Your task to perform on an android device: turn on translation in the chrome app Image 0: 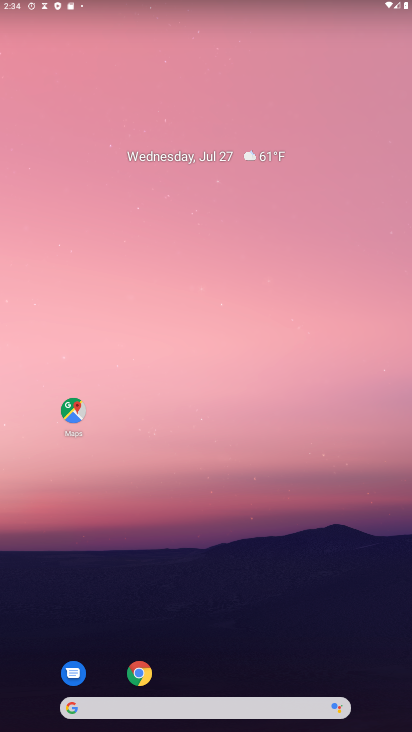
Step 0: click (141, 669)
Your task to perform on an android device: turn on translation in the chrome app Image 1: 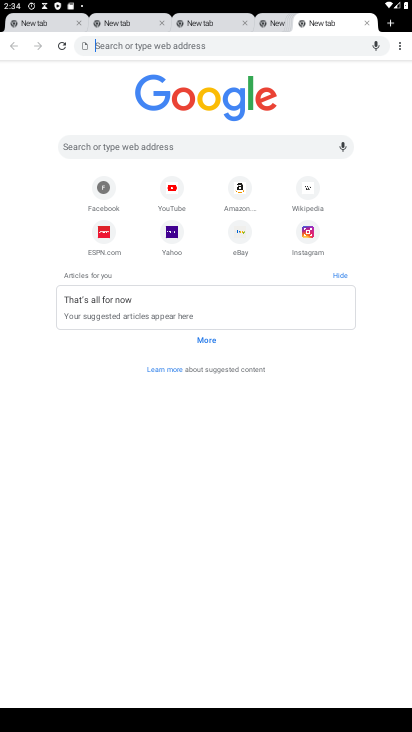
Step 1: click (398, 40)
Your task to perform on an android device: turn on translation in the chrome app Image 2: 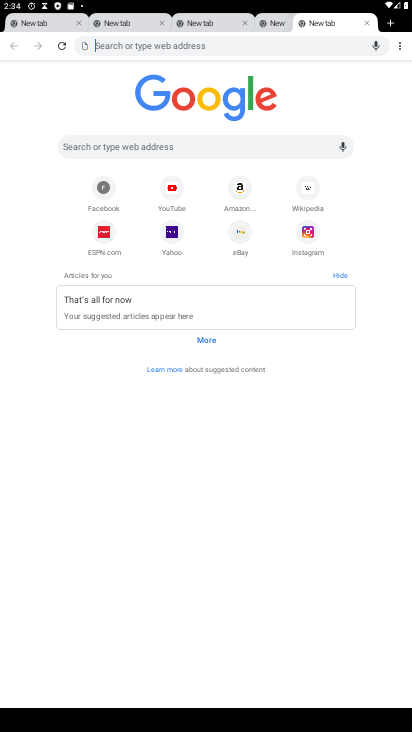
Step 2: click (402, 44)
Your task to perform on an android device: turn on translation in the chrome app Image 3: 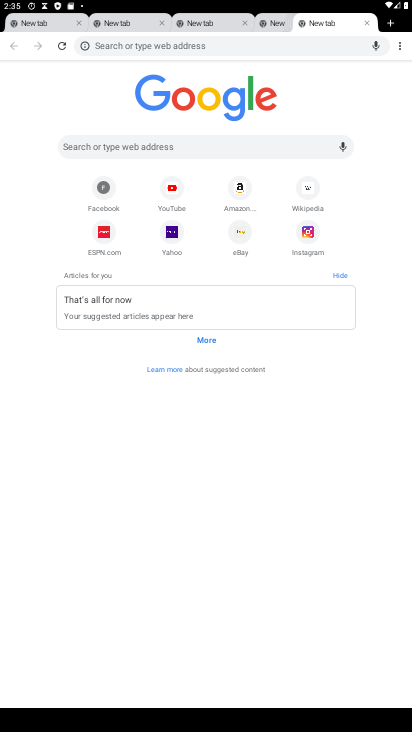
Step 3: click (401, 44)
Your task to perform on an android device: turn on translation in the chrome app Image 4: 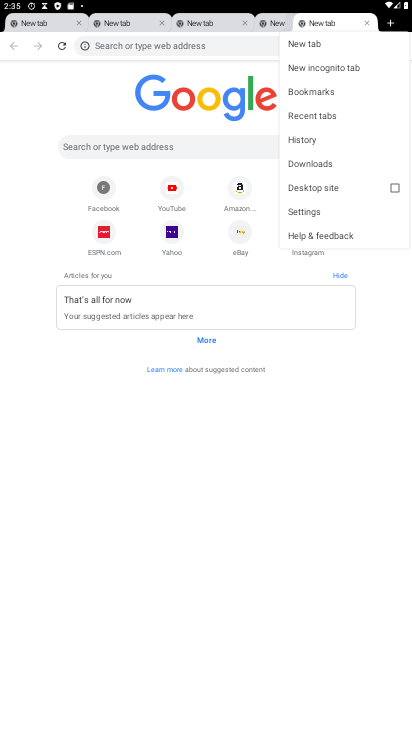
Step 4: click (318, 214)
Your task to perform on an android device: turn on translation in the chrome app Image 5: 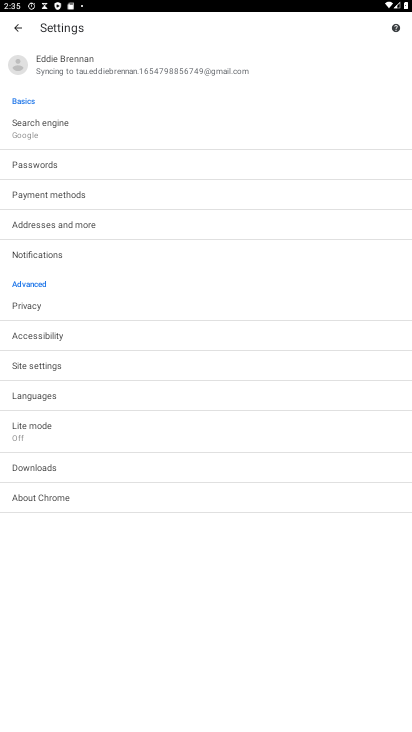
Step 5: click (35, 392)
Your task to perform on an android device: turn on translation in the chrome app Image 6: 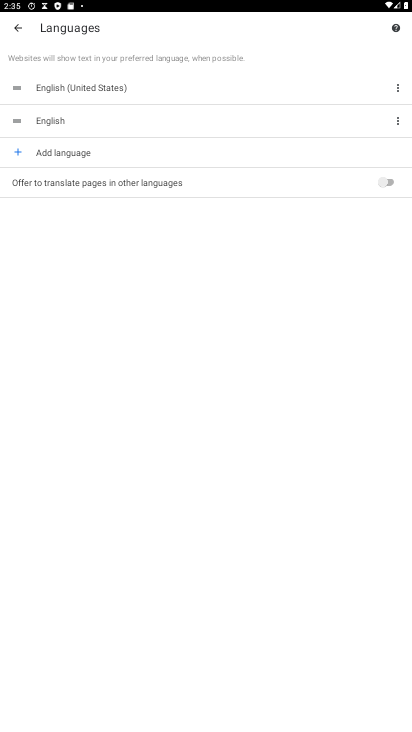
Step 6: click (390, 175)
Your task to perform on an android device: turn on translation in the chrome app Image 7: 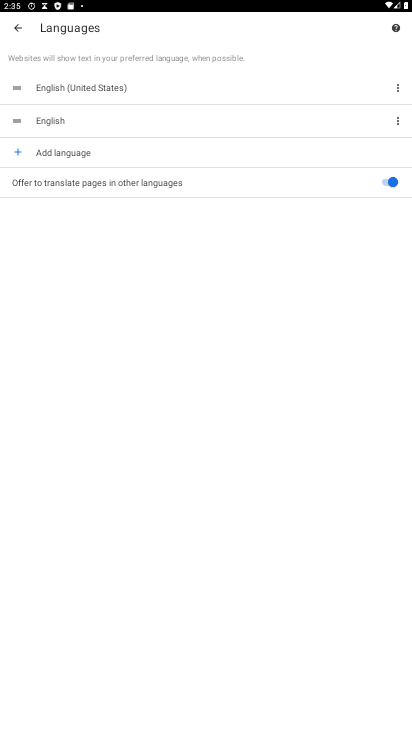
Step 7: task complete